Your task to perform on an android device: toggle improve location accuracy Image 0: 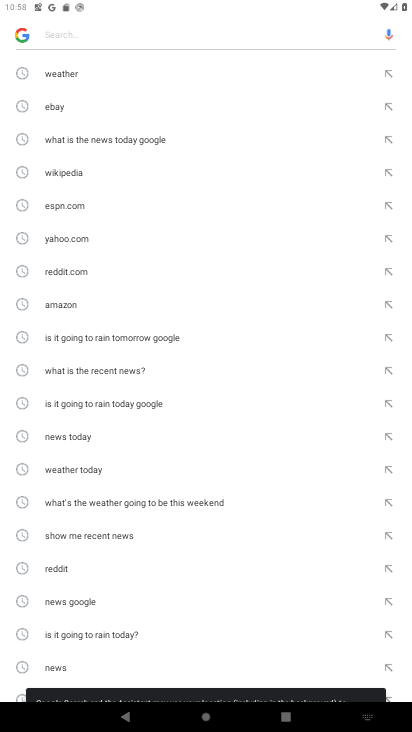
Step 0: press home button
Your task to perform on an android device: toggle improve location accuracy Image 1: 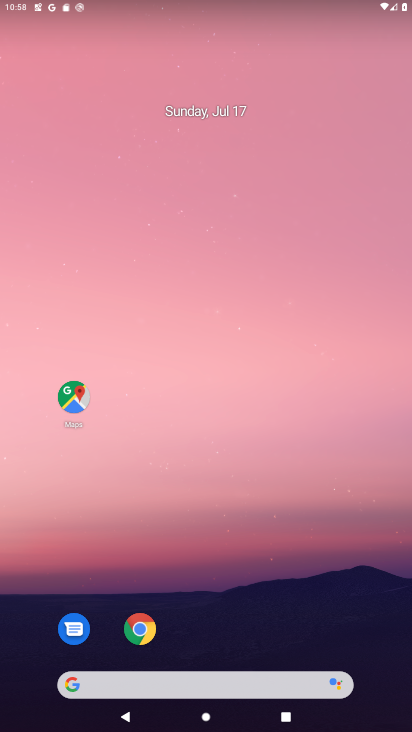
Step 1: drag from (199, 679) to (282, 65)
Your task to perform on an android device: toggle improve location accuracy Image 2: 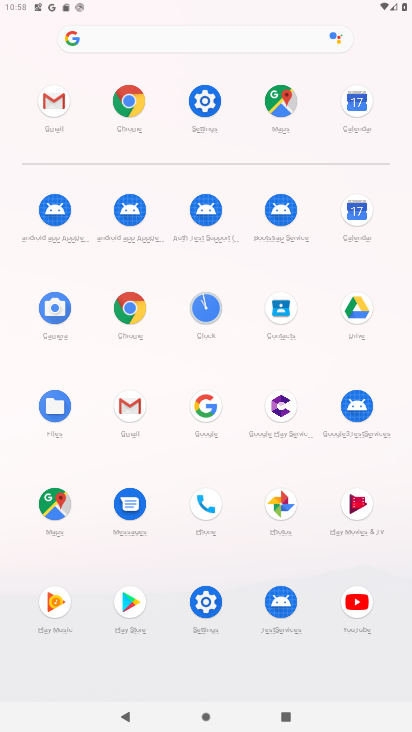
Step 2: click (205, 102)
Your task to perform on an android device: toggle improve location accuracy Image 3: 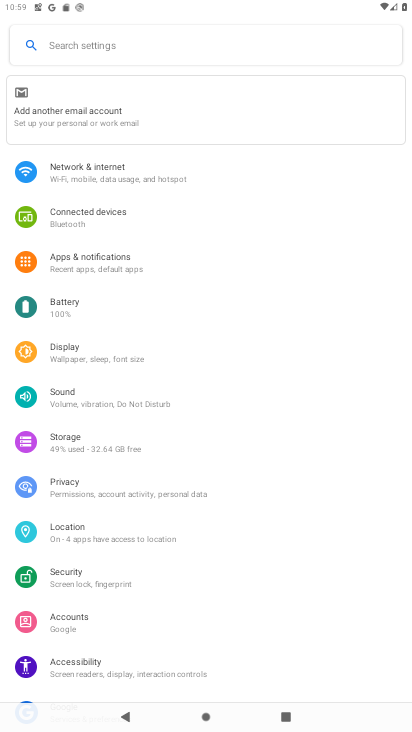
Step 3: click (105, 533)
Your task to perform on an android device: toggle improve location accuracy Image 4: 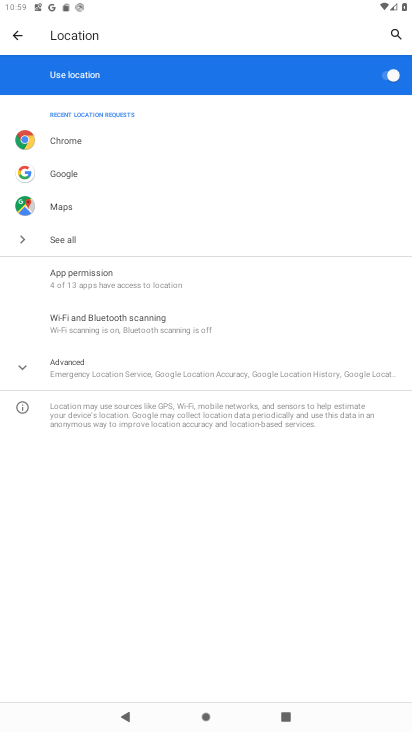
Step 4: click (182, 375)
Your task to perform on an android device: toggle improve location accuracy Image 5: 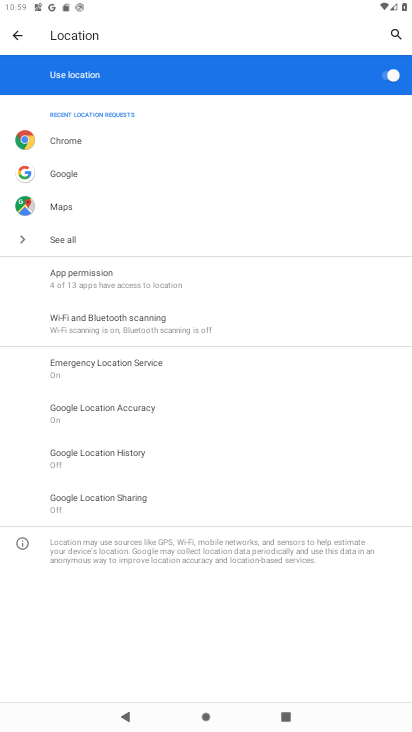
Step 5: click (145, 407)
Your task to perform on an android device: toggle improve location accuracy Image 6: 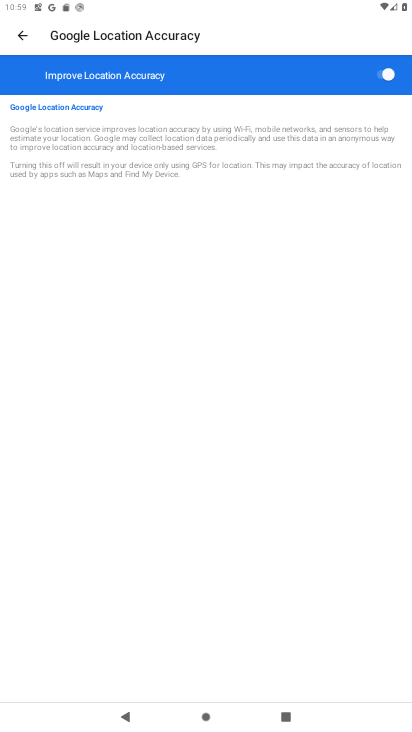
Step 6: click (383, 78)
Your task to perform on an android device: toggle improve location accuracy Image 7: 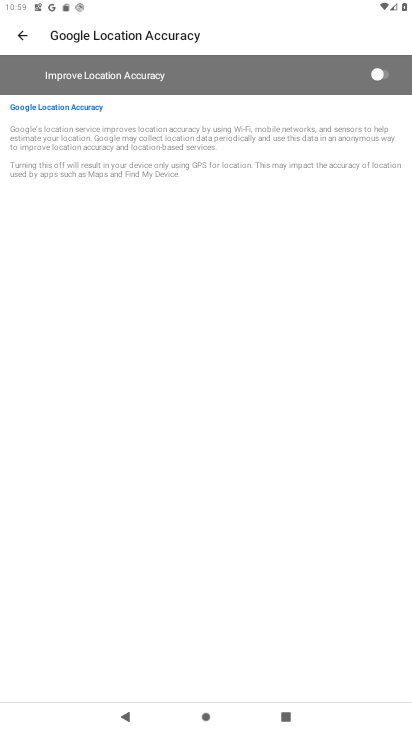
Step 7: task complete